Your task to perform on an android device: all mails in gmail Image 0: 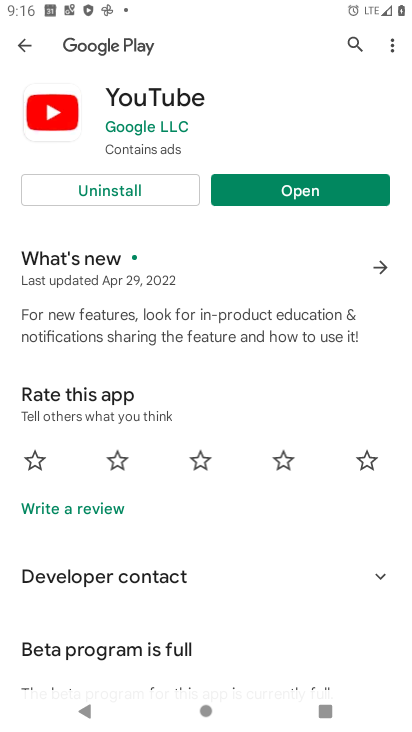
Step 0: press home button
Your task to perform on an android device: all mails in gmail Image 1: 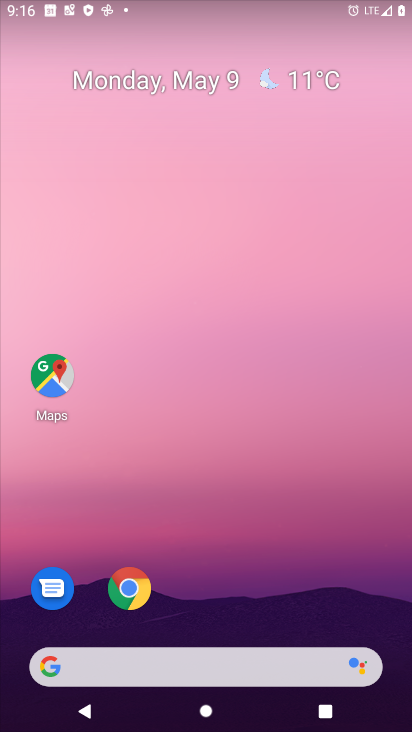
Step 1: drag from (347, 611) to (171, 53)
Your task to perform on an android device: all mails in gmail Image 2: 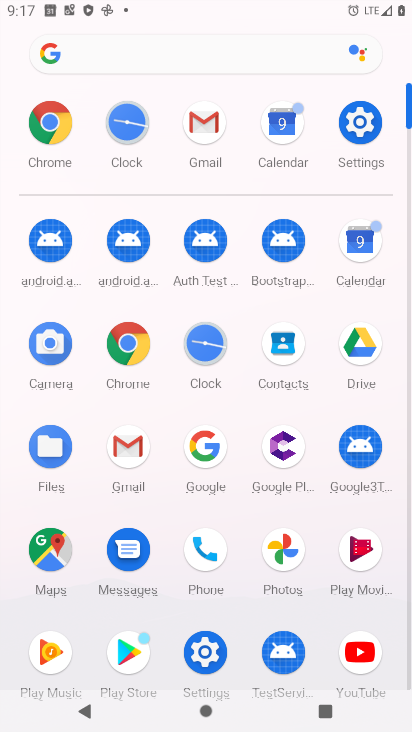
Step 2: click (152, 450)
Your task to perform on an android device: all mails in gmail Image 3: 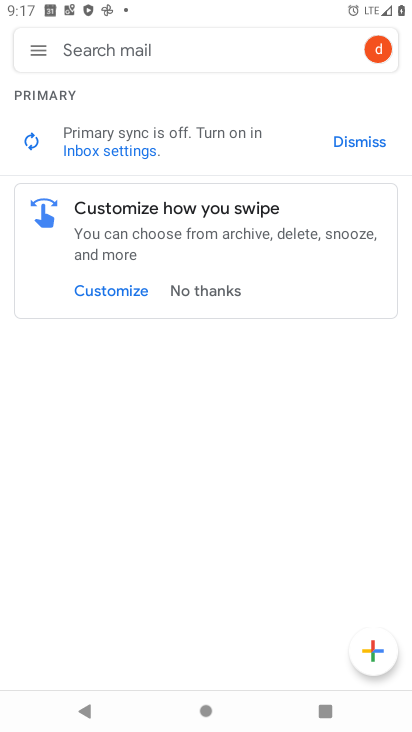
Step 3: click (42, 57)
Your task to perform on an android device: all mails in gmail Image 4: 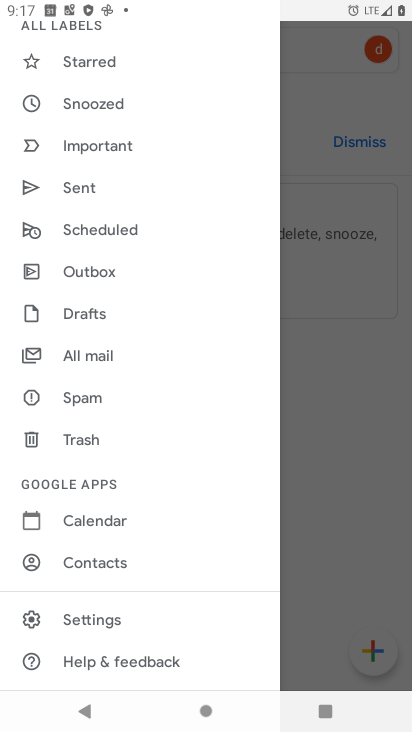
Step 4: click (130, 360)
Your task to perform on an android device: all mails in gmail Image 5: 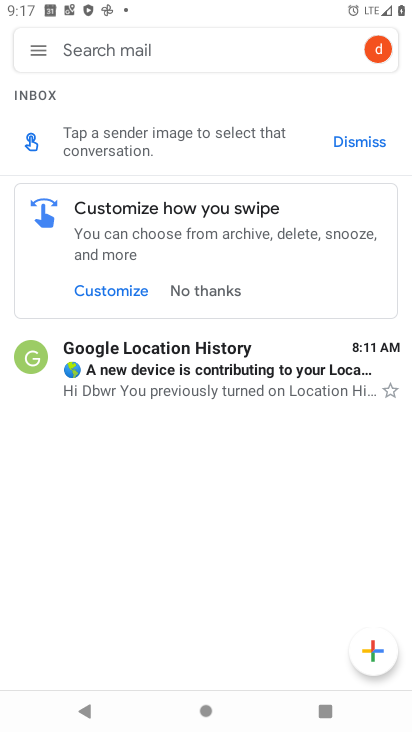
Step 5: task complete